Your task to perform on an android device: turn on bluetooth scan Image 0: 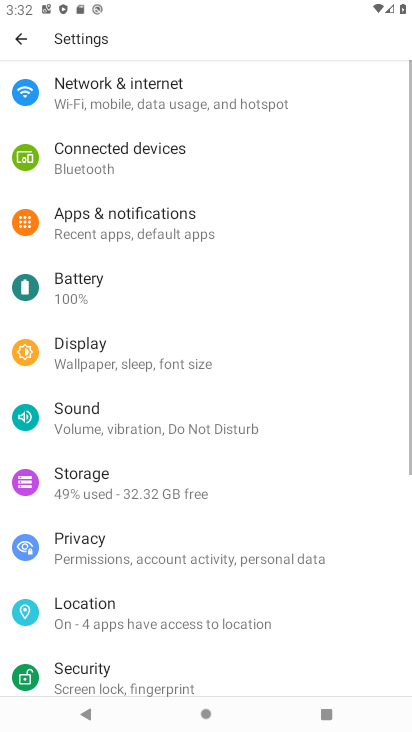
Step 0: press home button
Your task to perform on an android device: turn on bluetooth scan Image 1: 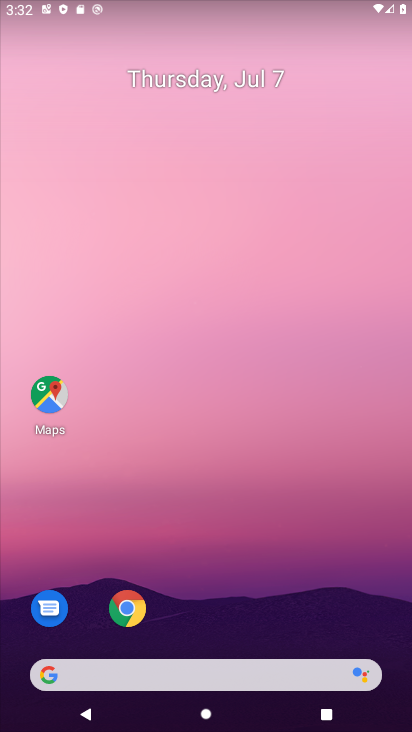
Step 1: drag from (392, 643) to (340, 269)
Your task to perform on an android device: turn on bluetooth scan Image 2: 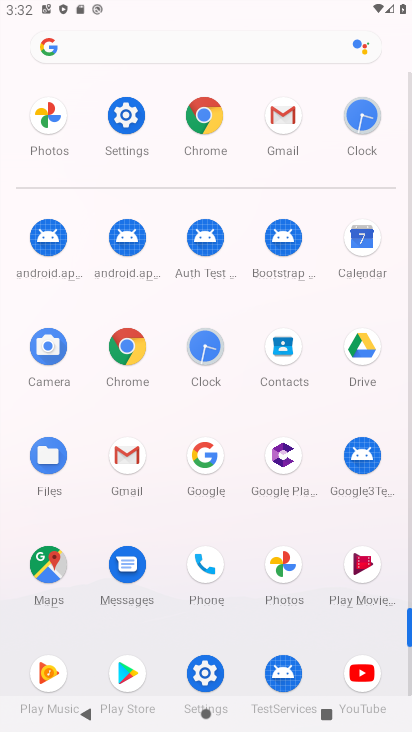
Step 2: click (205, 671)
Your task to perform on an android device: turn on bluetooth scan Image 3: 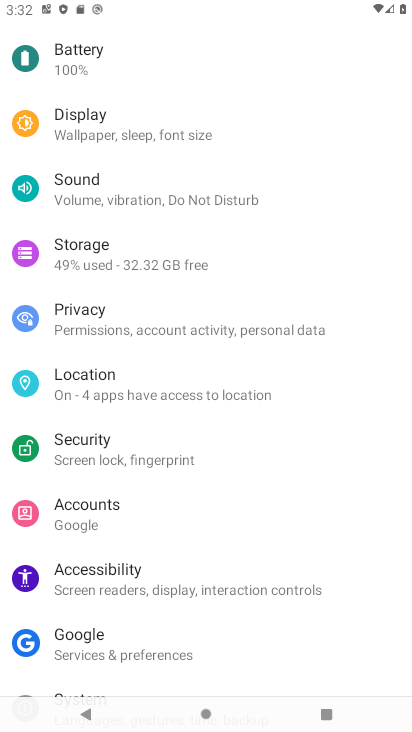
Step 3: click (110, 379)
Your task to perform on an android device: turn on bluetooth scan Image 4: 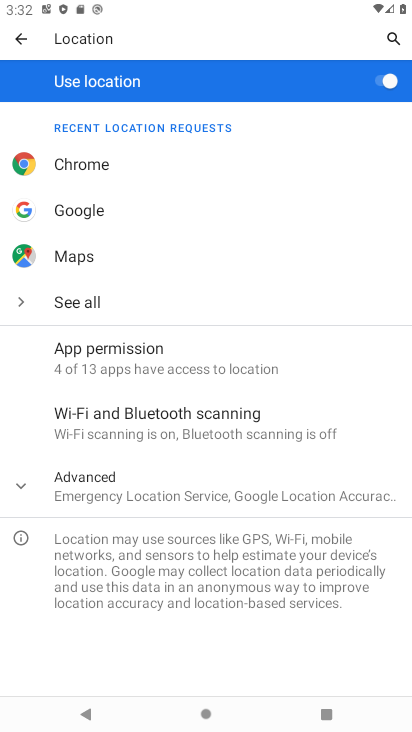
Step 4: click (111, 417)
Your task to perform on an android device: turn on bluetooth scan Image 5: 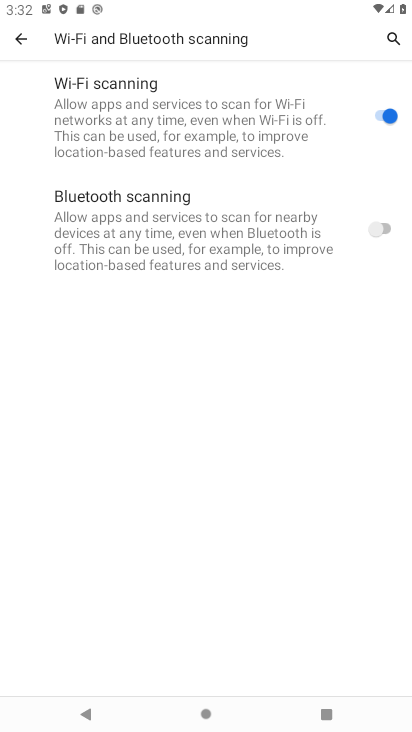
Step 5: click (388, 231)
Your task to perform on an android device: turn on bluetooth scan Image 6: 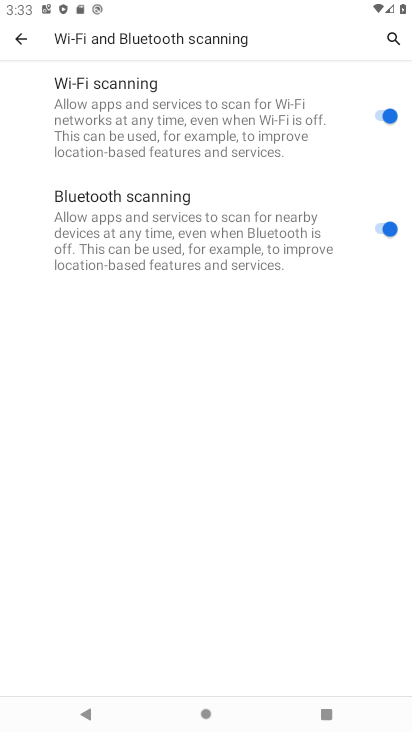
Step 6: task complete